Your task to perform on an android device: Go to calendar. Show me events next week Image 0: 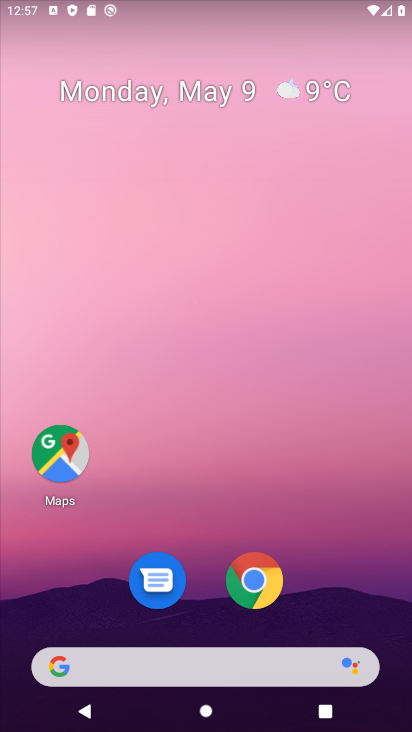
Step 0: drag from (329, 570) to (231, 103)
Your task to perform on an android device: Go to calendar. Show me events next week Image 1: 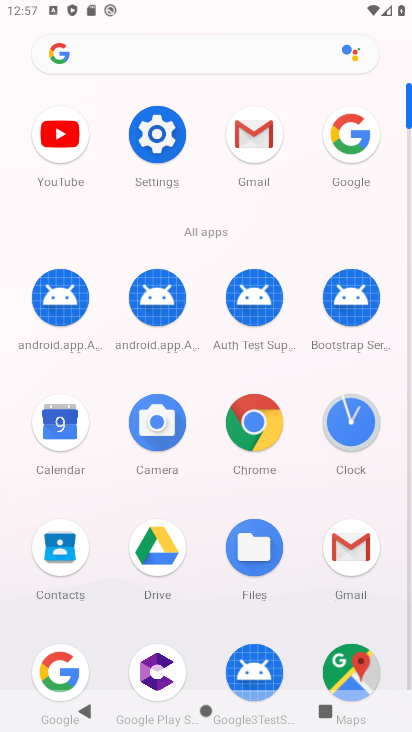
Step 1: click (51, 426)
Your task to perform on an android device: Go to calendar. Show me events next week Image 2: 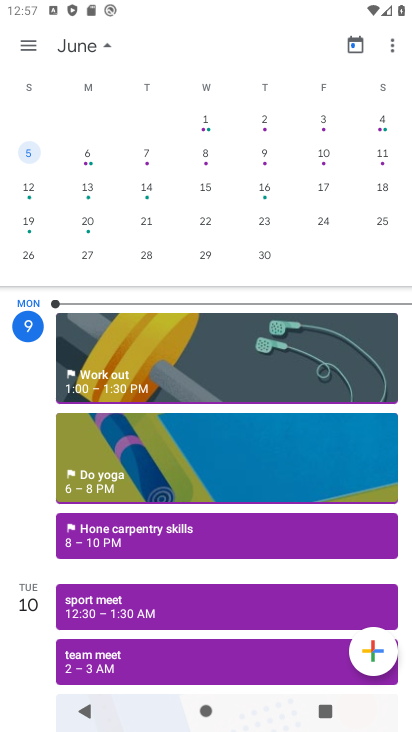
Step 2: click (102, 38)
Your task to perform on an android device: Go to calendar. Show me events next week Image 3: 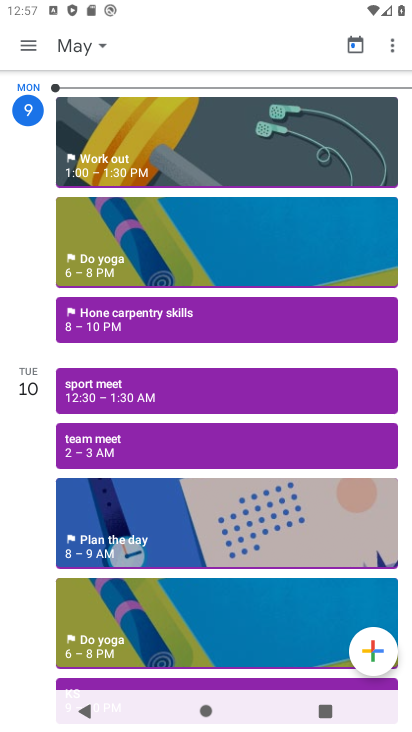
Step 3: click (96, 39)
Your task to perform on an android device: Go to calendar. Show me events next week Image 4: 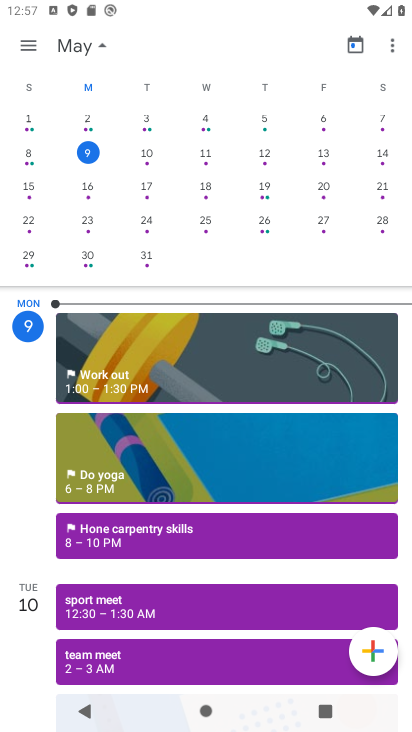
Step 4: click (31, 45)
Your task to perform on an android device: Go to calendar. Show me events next week Image 5: 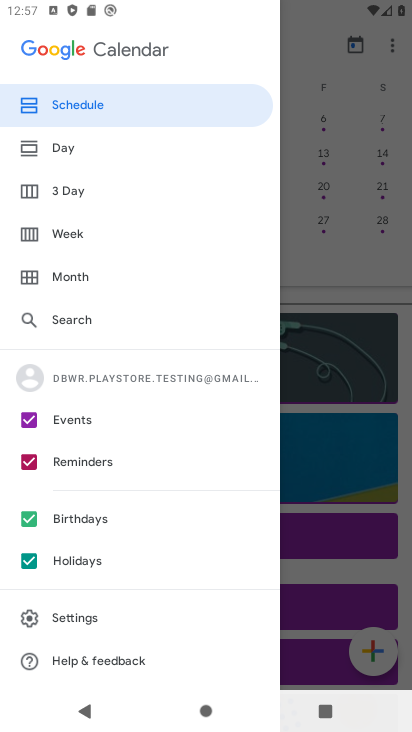
Step 5: click (89, 233)
Your task to perform on an android device: Go to calendar. Show me events next week Image 6: 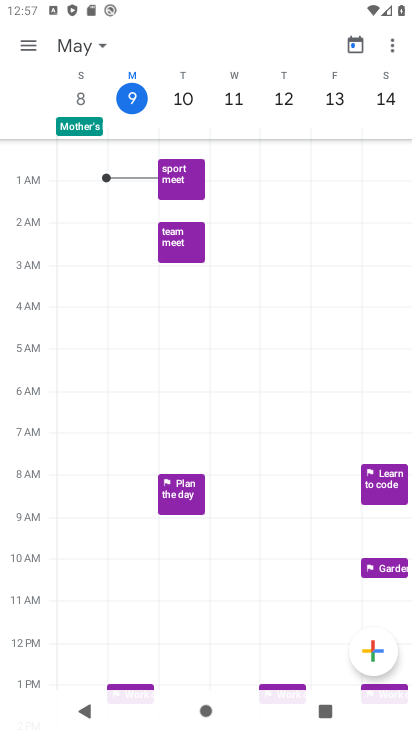
Step 6: click (82, 38)
Your task to perform on an android device: Go to calendar. Show me events next week Image 7: 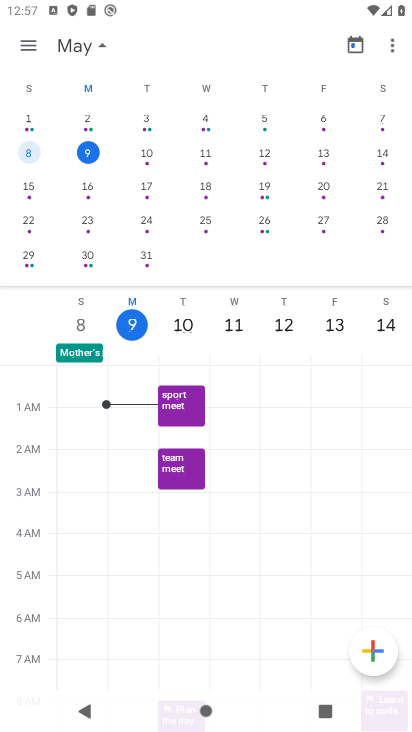
Step 7: click (31, 185)
Your task to perform on an android device: Go to calendar. Show me events next week Image 8: 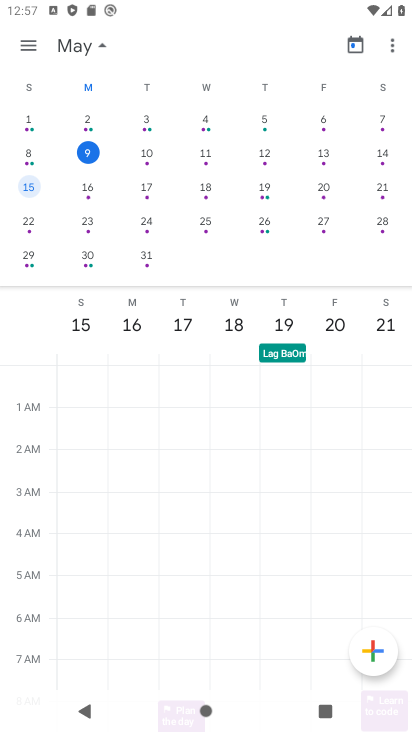
Step 8: task complete